Your task to perform on an android device: turn off location Image 0: 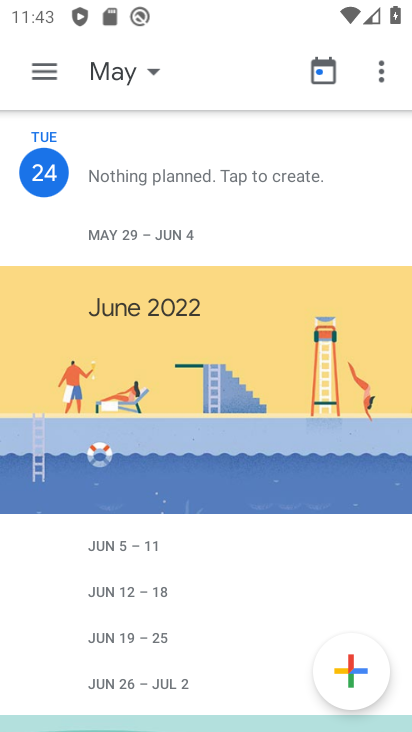
Step 0: press back button
Your task to perform on an android device: turn off location Image 1: 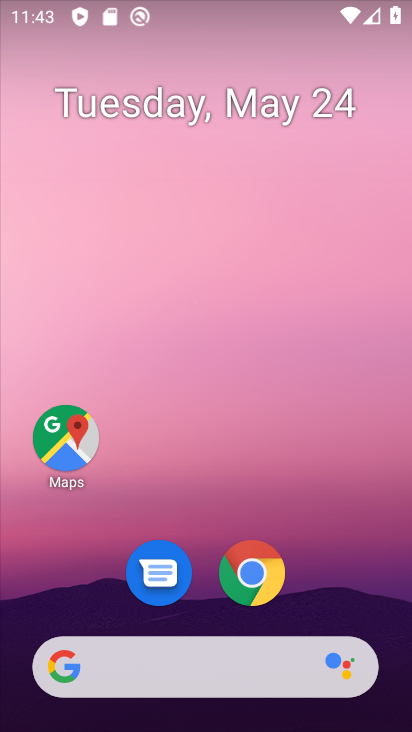
Step 1: drag from (322, 571) to (254, 58)
Your task to perform on an android device: turn off location Image 2: 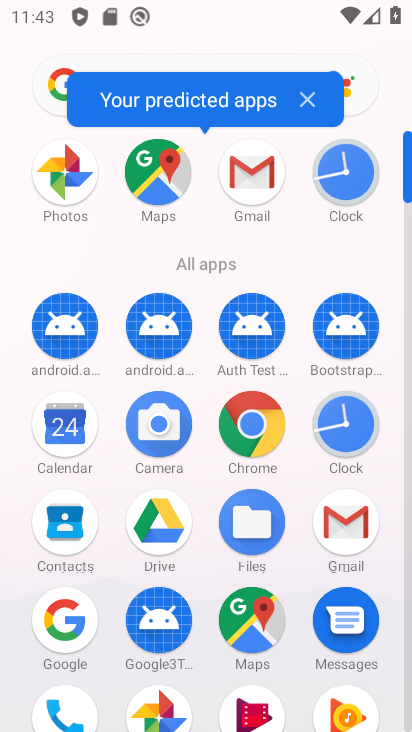
Step 2: drag from (6, 480) to (21, 199)
Your task to perform on an android device: turn off location Image 3: 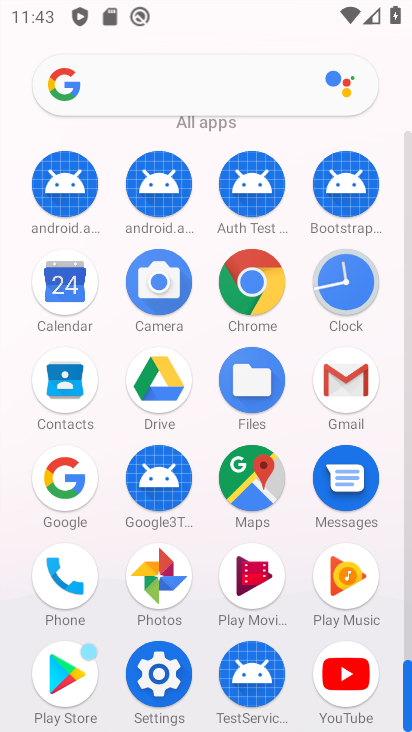
Step 3: click (161, 671)
Your task to perform on an android device: turn off location Image 4: 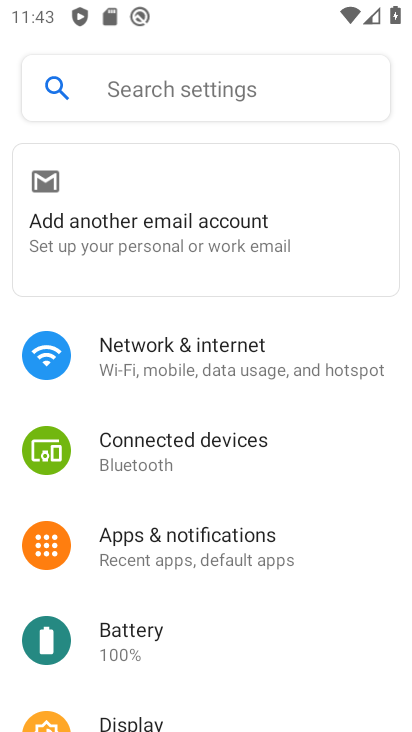
Step 4: drag from (232, 620) to (262, 150)
Your task to perform on an android device: turn off location Image 5: 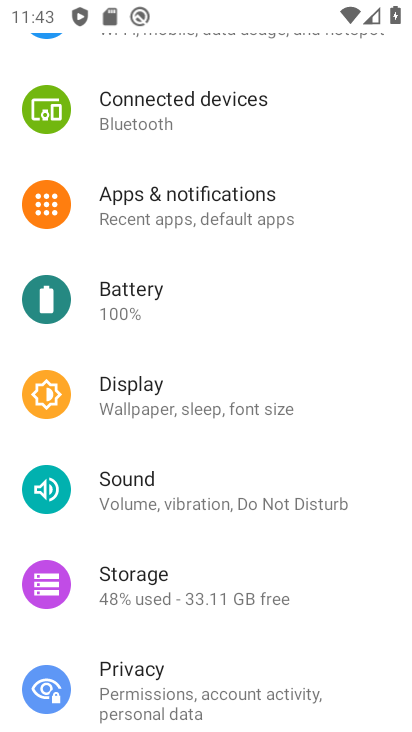
Step 5: drag from (240, 584) to (264, 187)
Your task to perform on an android device: turn off location Image 6: 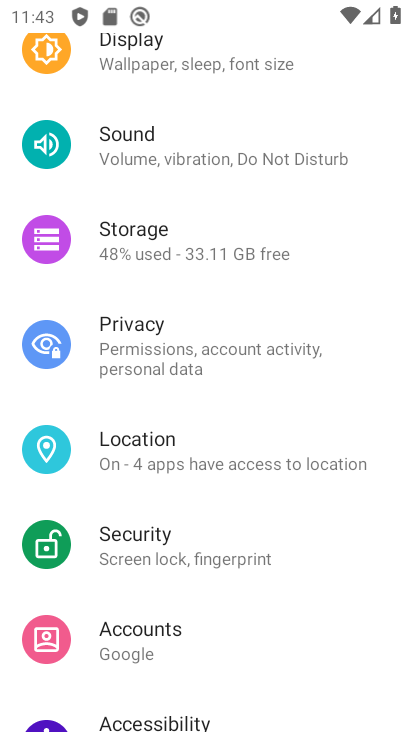
Step 6: click (199, 450)
Your task to perform on an android device: turn off location Image 7: 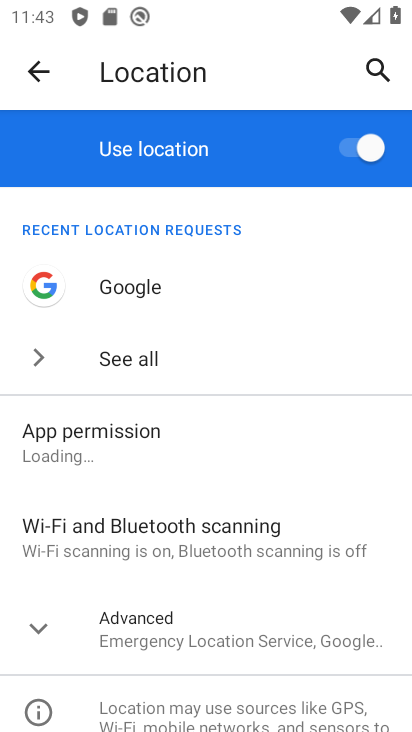
Step 7: click (53, 628)
Your task to perform on an android device: turn off location Image 8: 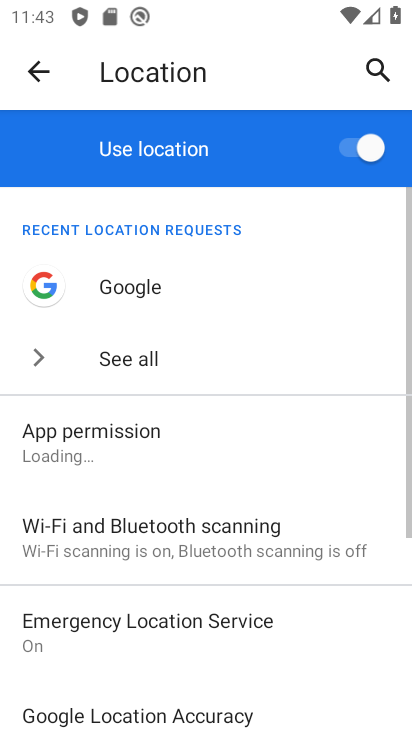
Step 8: drag from (280, 604) to (281, 215)
Your task to perform on an android device: turn off location Image 9: 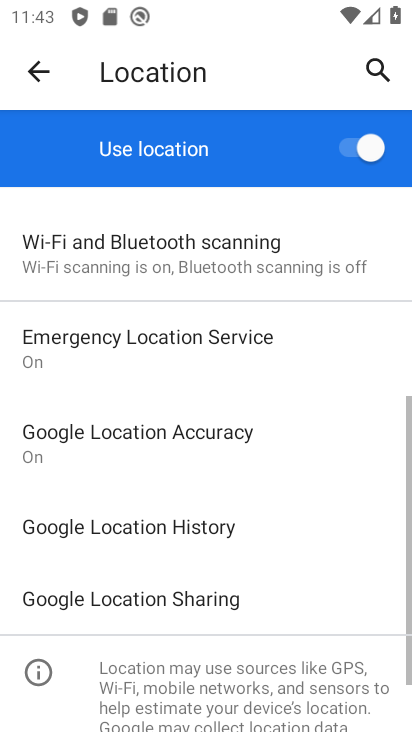
Step 9: click (349, 132)
Your task to perform on an android device: turn off location Image 10: 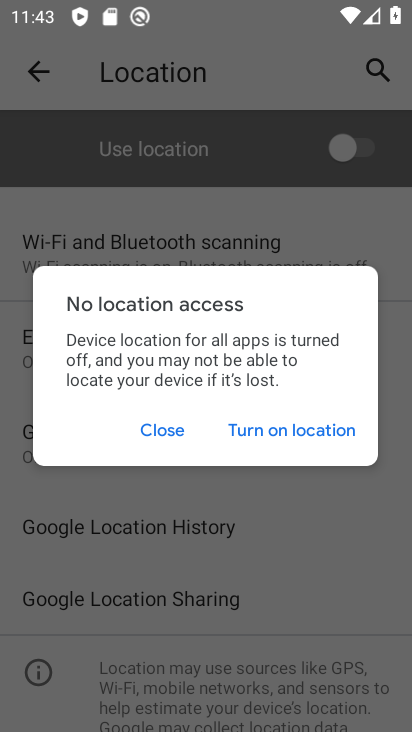
Step 10: click (181, 430)
Your task to perform on an android device: turn off location Image 11: 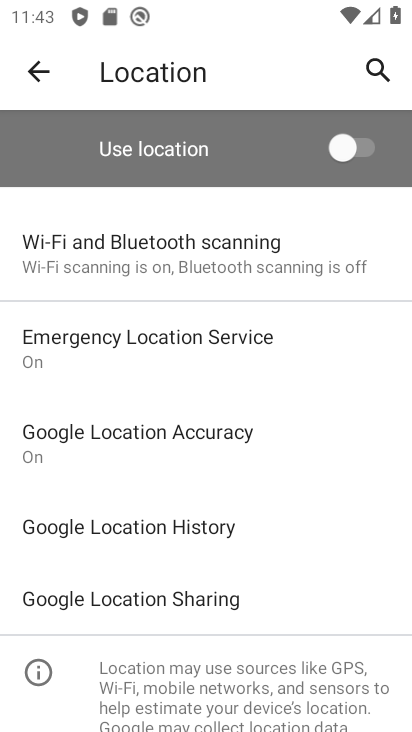
Step 11: task complete